Your task to perform on an android device: Open maps Image 0: 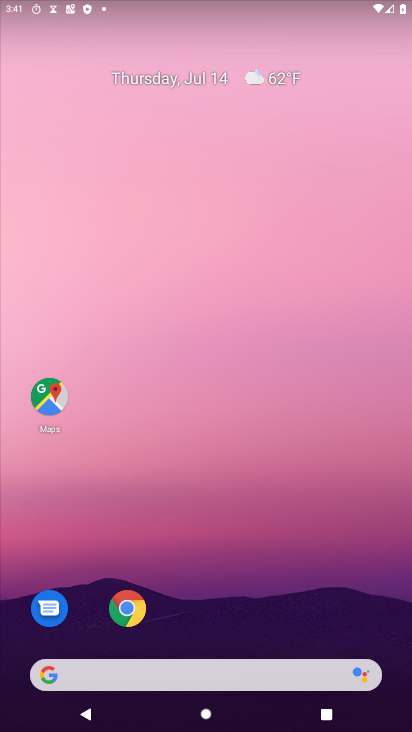
Step 0: click (52, 400)
Your task to perform on an android device: Open maps Image 1: 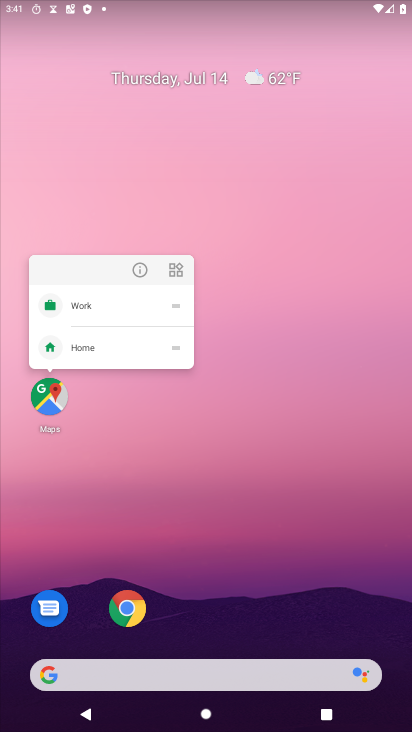
Step 1: click (54, 394)
Your task to perform on an android device: Open maps Image 2: 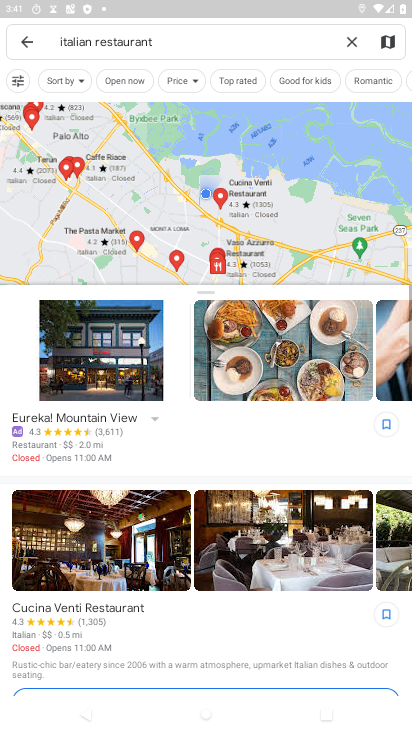
Step 2: task complete